Your task to perform on an android device: open chrome and create a bookmark for the current page Image 0: 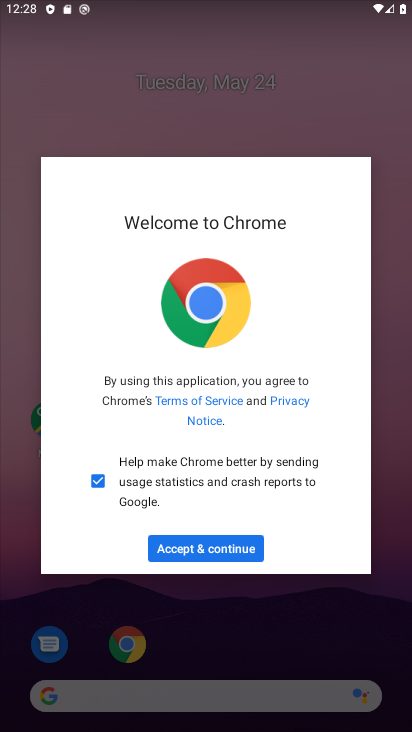
Step 0: click (250, 548)
Your task to perform on an android device: open chrome and create a bookmark for the current page Image 1: 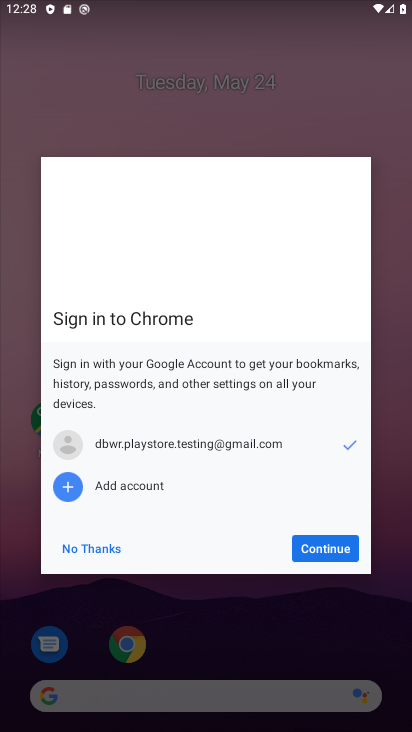
Step 1: click (340, 554)
Your task to perform on an android device: open chrome and create a bookmark for the current page Image 2: 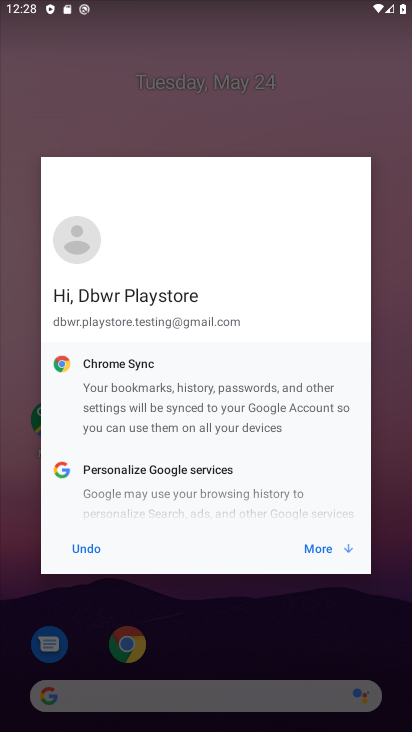
Step 2: click (340, 554)
Your task to perform on an android device: open chrome and create a bookmark for the current page Image 3: 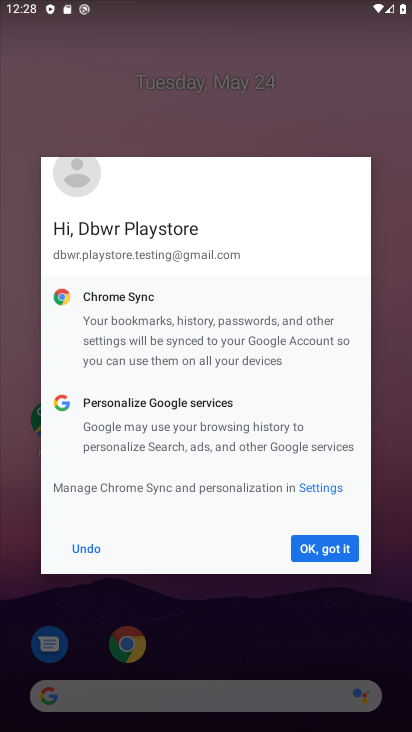
Step 3: click (339, 555)
Your task to perform on an android device: open chrome and create a bookmark for the current page Image 4: 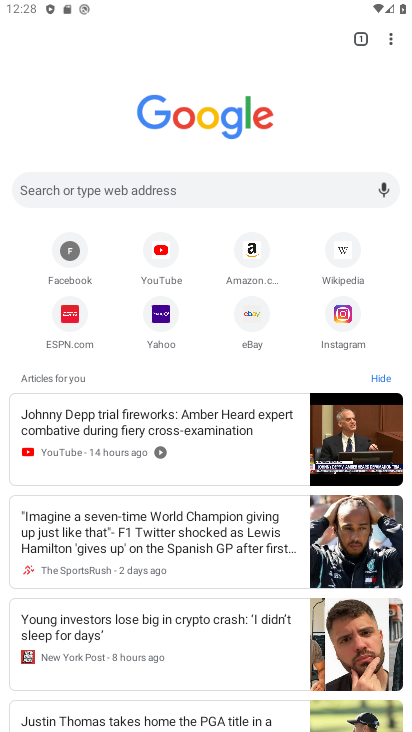
Step 4: task complete